Your task to perform on an android device: Open internet settings Image 0: 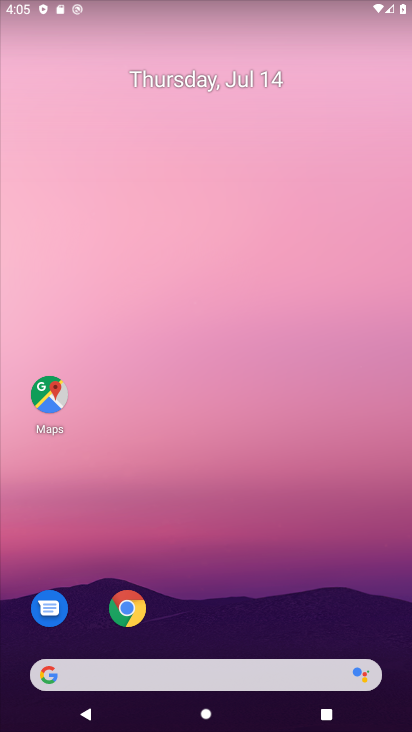
Step 0: drag from (206, 631) to (188, 133)
Your task to perform on an android device: Open internet settings Image 1: 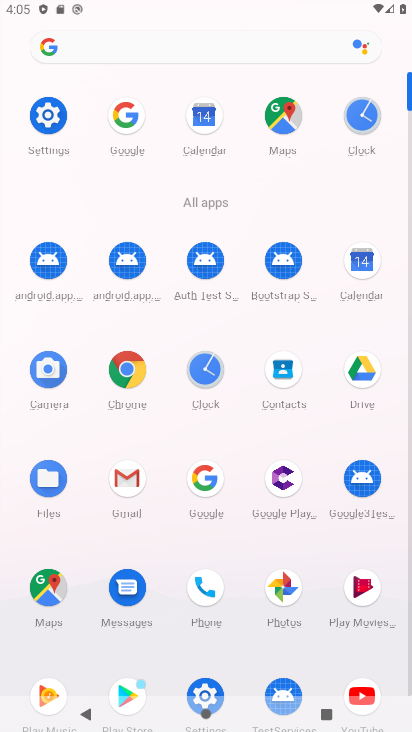
Step 1: click (31, 119)
Your task to perform on an android device: Open internet settings Image 2: 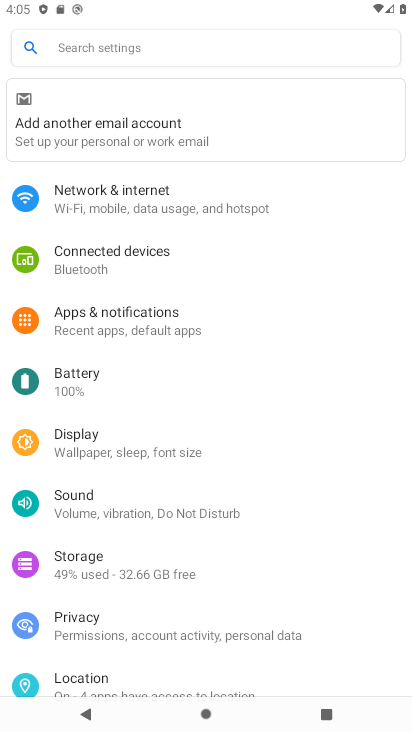
Step 2: click (164, 199)
Your task to perform on an android device: Open internet settings Image 3: 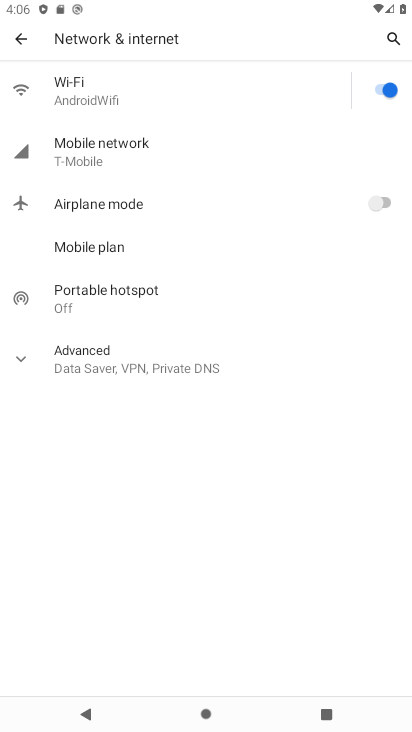
Step 3: task complete